Your task to perform on an android device: star an email in the gmail app Image 0: 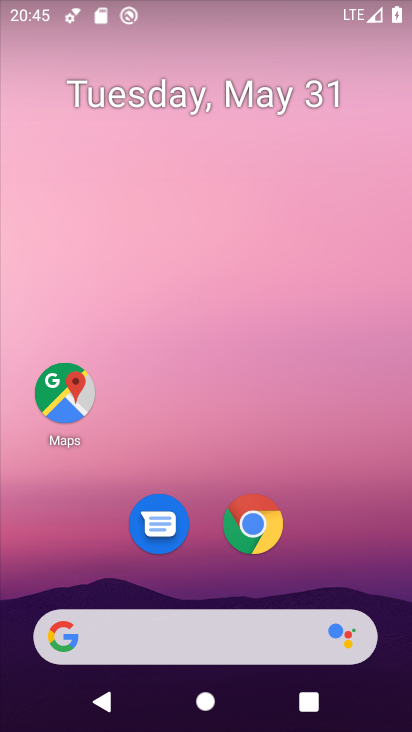
Step 0: drag from (327, 556) to (202, 5)
Your task to perform on an android device: star an email in the gmail app Image 1: 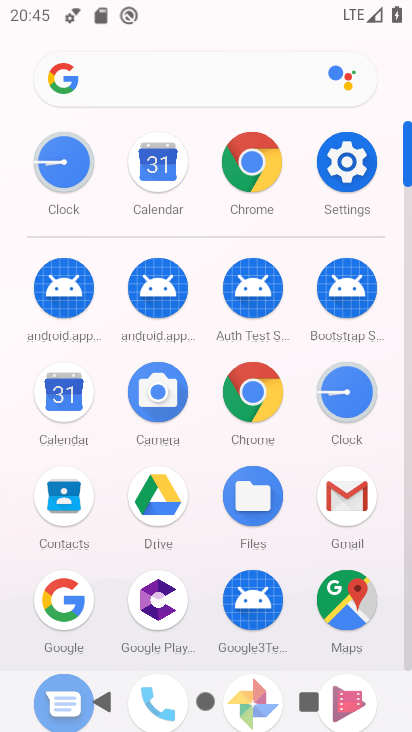
Step 1: click (343, 493)
Your task to perform on an android device: star an email in the gmail app Image 2: 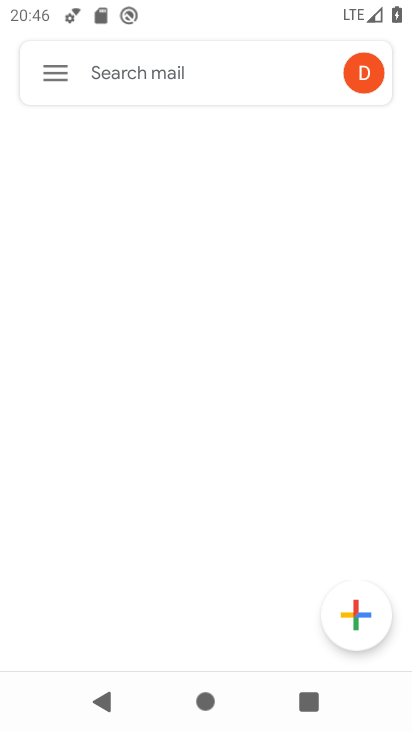
Step 2: click (51, 71)
Your task to perform on an android device: star an email in the gmail app Image 3: 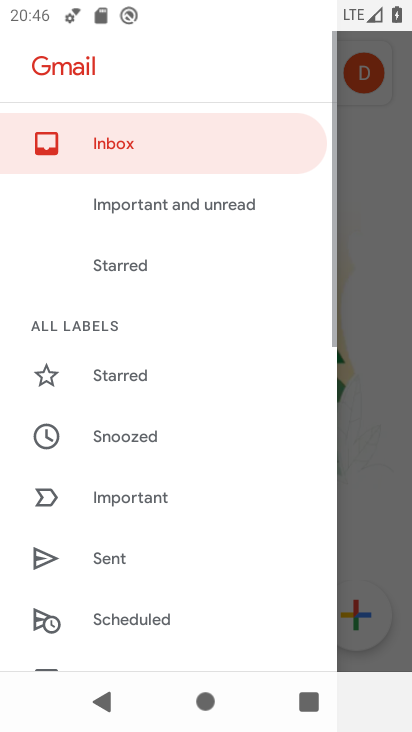
Step 3: drag from (155, 529) to (201, 119)
Your task to perform on an android device: star an email in the gmail app Image 4: 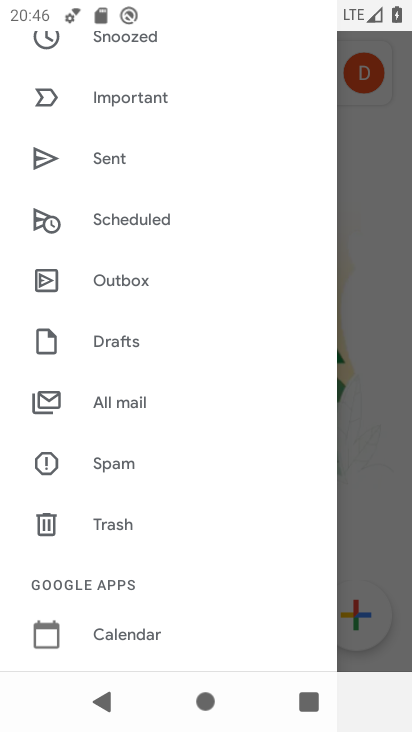
Step 4: click (146, 390)
Your task to perform on an android device: star an email in the gmail app Image 5: 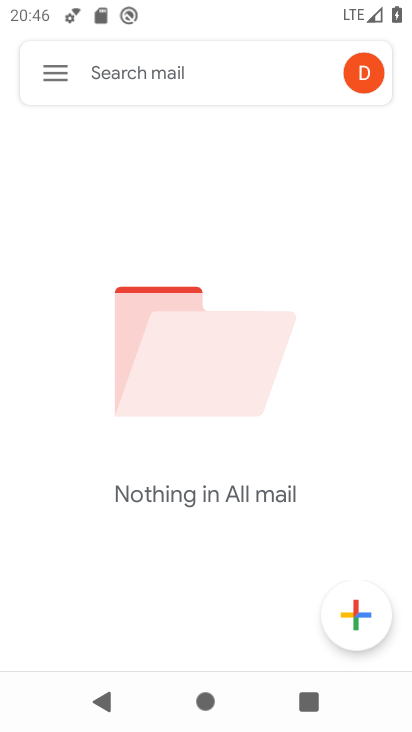
Step 5: task complete